Your task to perform on an android device: Open Android settings Image 0: 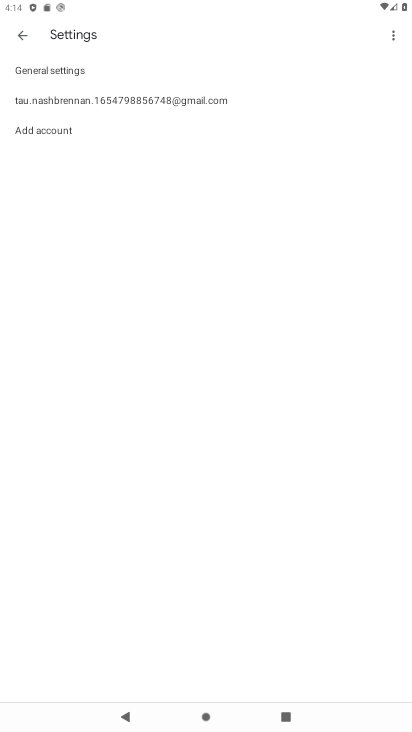
Step 0: press home button
Your task to perform on an android device: Open Android settings Image 1: 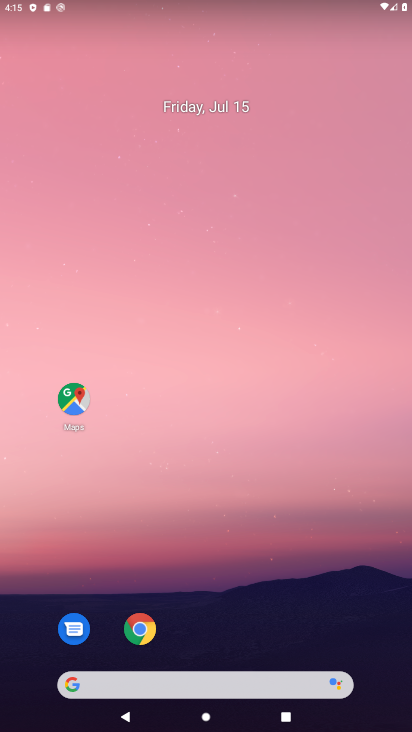
Step 1: drag from (189, 579) to (237, 95)
Your task to perform on an android device: Open Android settings Image 2: 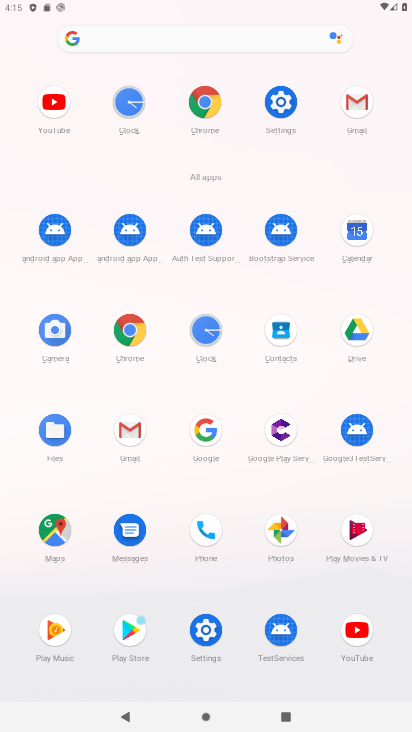
Step 2: click (279, 103)
Your task to perform on an android device: Open Android settings Image 3: 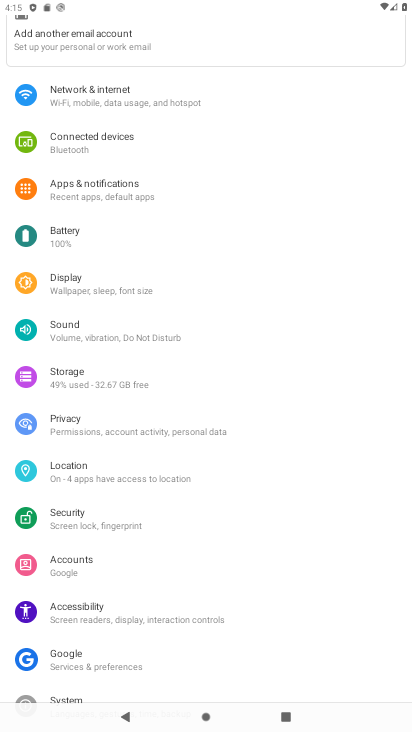
Step 3: drag from (94, 459) to (88, 255)
Your task to perform on an android device: Open Android settings Image 4: 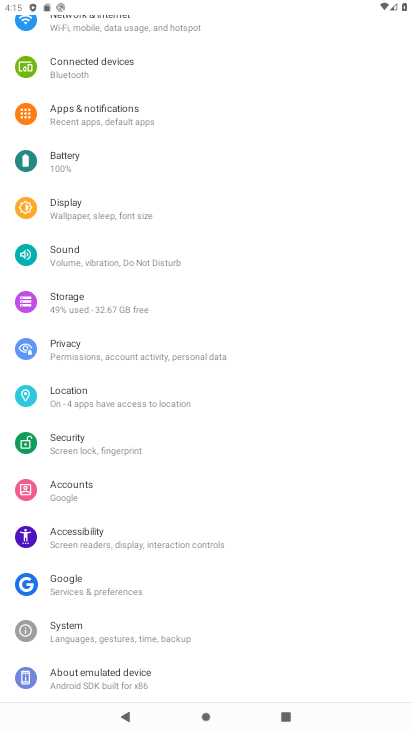
Step 4: click (120, 687)
Your task to perform on an android device: Open Android settings Image 5: 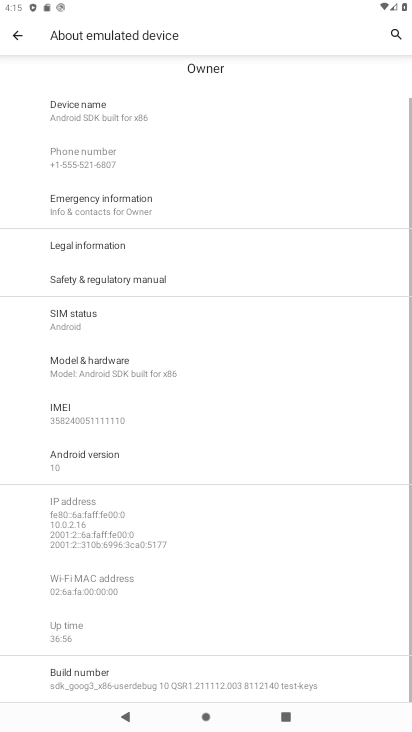
Step 5: click (92, 457)
Your task to perform on an android device: Open Android settings Image 6: 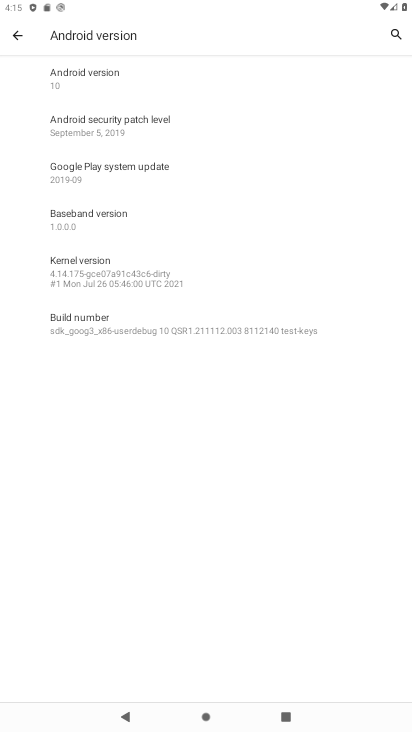
Step 6: task complete